Your task to perform on an android device: change the upload size in google photos Image 0: 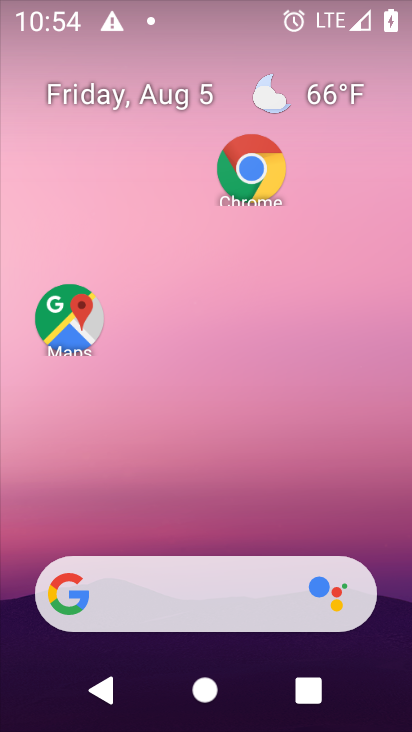
Step 0: drag from (185, 513) to (164, 103)
Your task to perform on an android device: change the upload size in google photos Image 1: 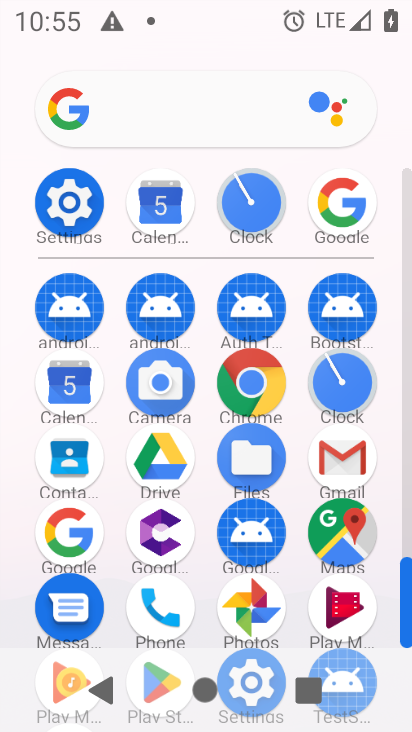
Step 1: click (255, 604)
Your task to perform on an android device: change the upload size in google photos Image 2: 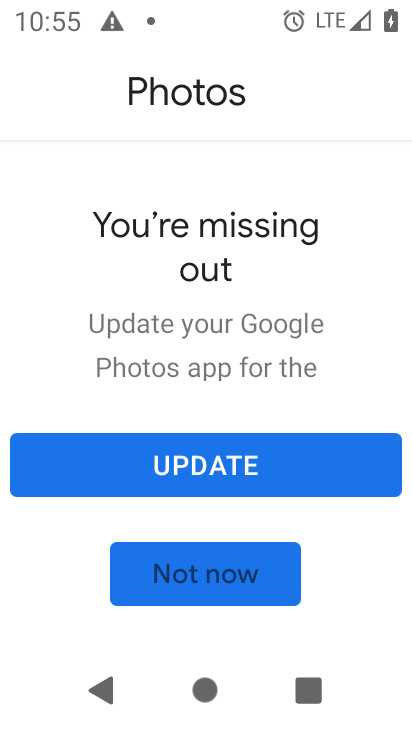
Step 2: click (194, 575)
Your task to perform on an android device: change the upload size in google photos Image 3: 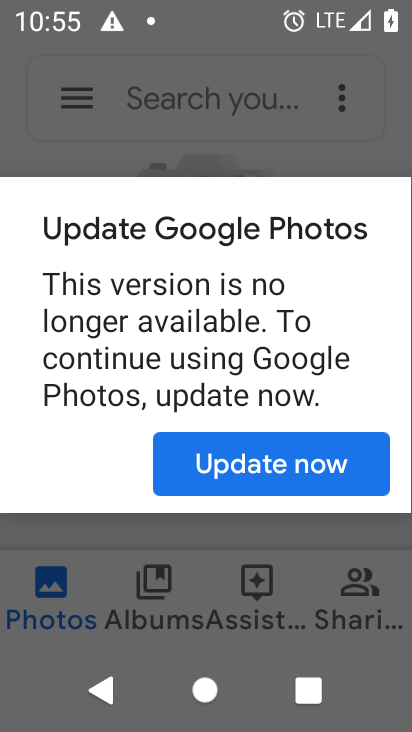
Step 3: click (339, 457)
Your task to perform on an android device: change the upload size in google photos Image 4: 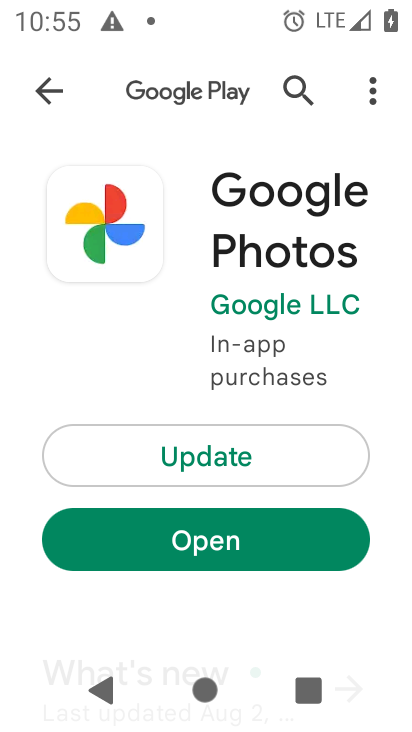
Step 4: click (274, 527)
Your task to perform on an android device: change the upload size in google photos Image 5: 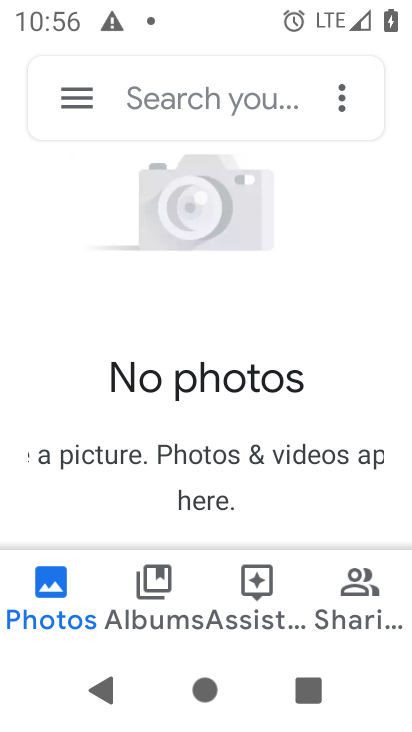
Step 5: click (82, 85)
Your task to perform on an android device: change the upload size in google photos Image 6: 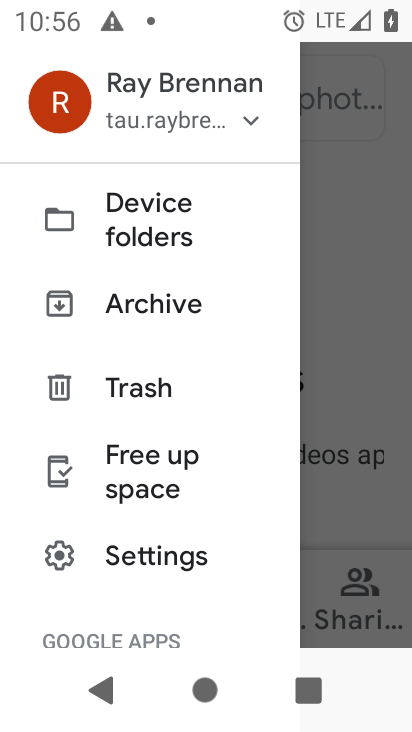
Step 6: drag from (119, 566) to (130, 254)
Your task to perform on an android device: change the upload size in google photos Image 7: 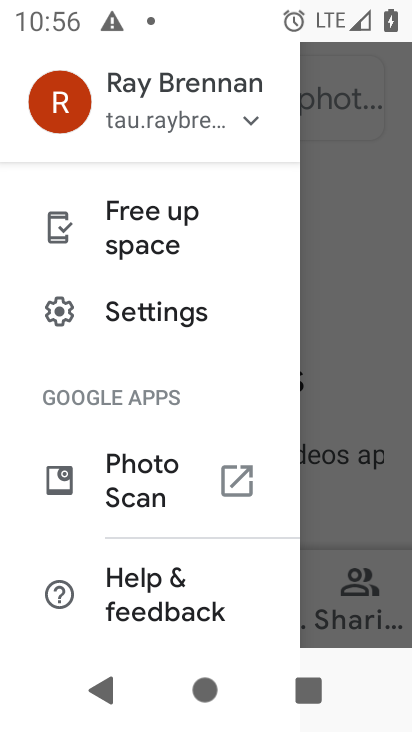
Step 7: click (138, 311)
Your task to perform on an android device: change the upload size in google photos Image 8: 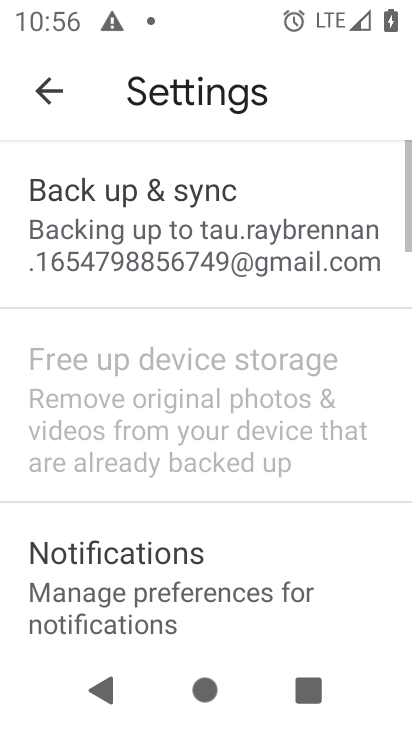
Step 8: drag from (132, 523) to (134, 185)
Your task to perform on an android device: change the upload size in google photos Image 9: 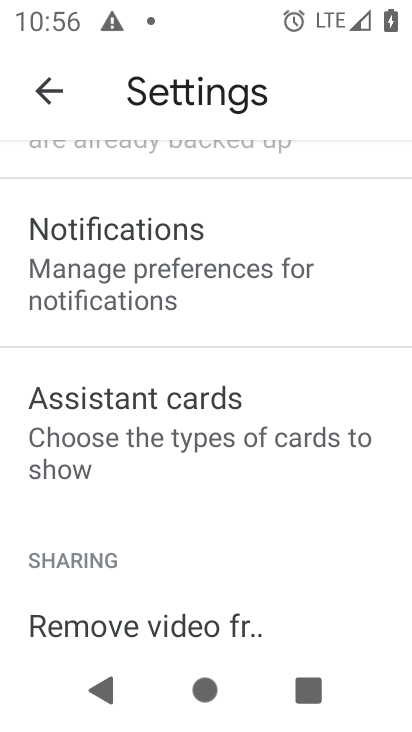
Step 9: drag from (143, 493) to (155, 157)
Your task to perform on an android device: change the upload size in google photos Image 10: 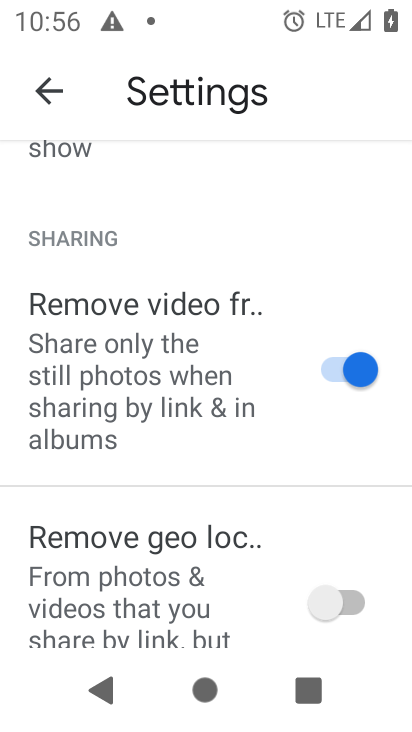
Step 10: drag from (135, 548) to (149, 214)
Your task to perform on an android device: change the upload size in google photos Image 11: 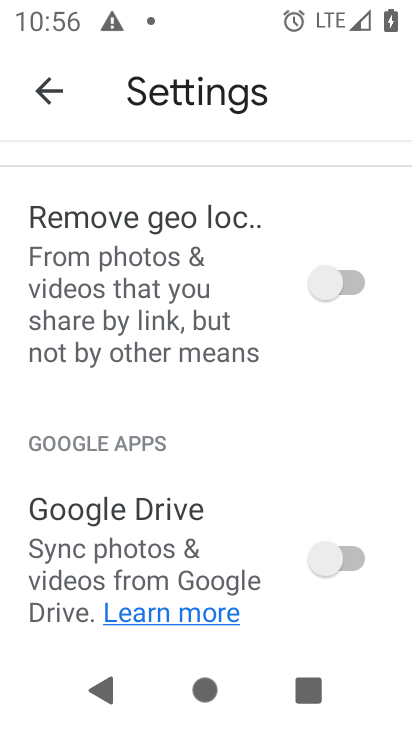
Step 11: drag from (149, 587) to (162, 195)
Your task to perform on an android device: change the upload size in google photos Image 12: 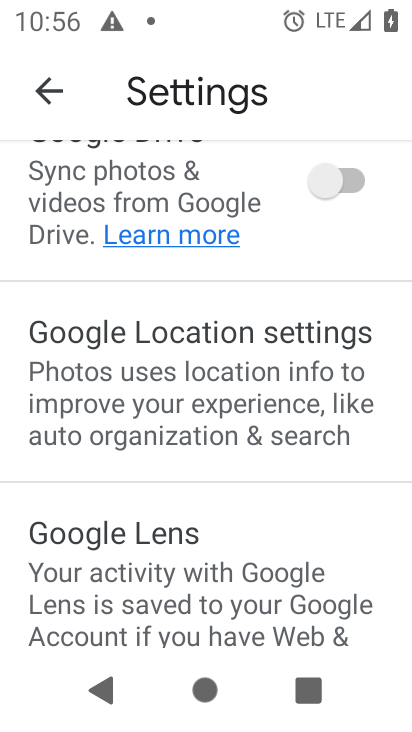
Step 12: drag from (163, 251) to (163, 572)
Your task to perform on an android device: change the upload size in google photos Image 13: 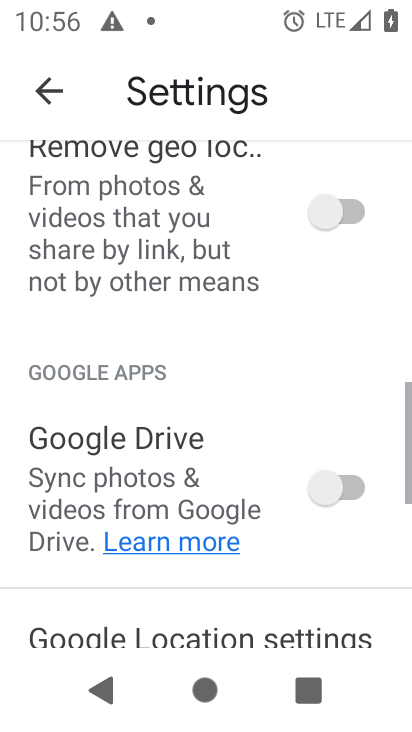
Step 13: drag from (162, 271) to (202, 597)
Your task to perform on an android device: change the upload size in google photos Image 14: 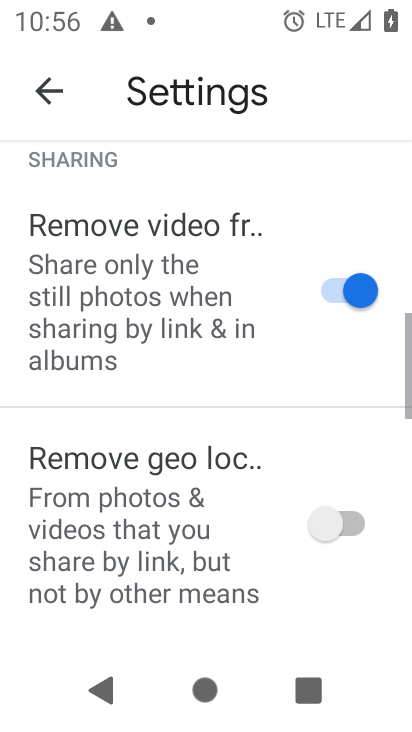
Step 14: drag from (143, 224) to (183, 571)
Your task to perform on an android device: change the upload size in google photos Image 15: 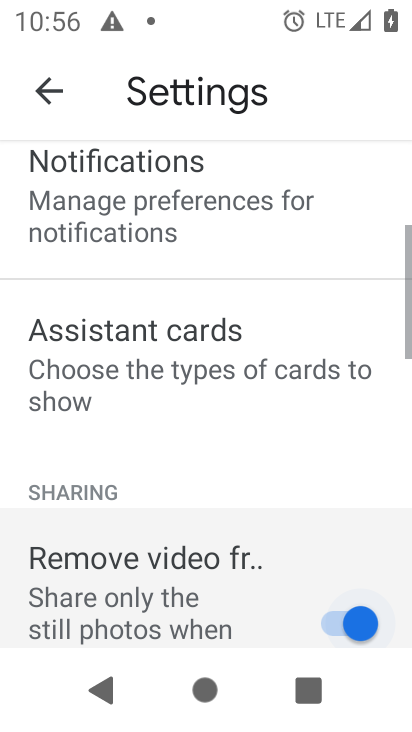
Step 15: drag from (184, 195) to (223, 562)
Your task to perform on an android device: change the upload size in google photos Image 16: 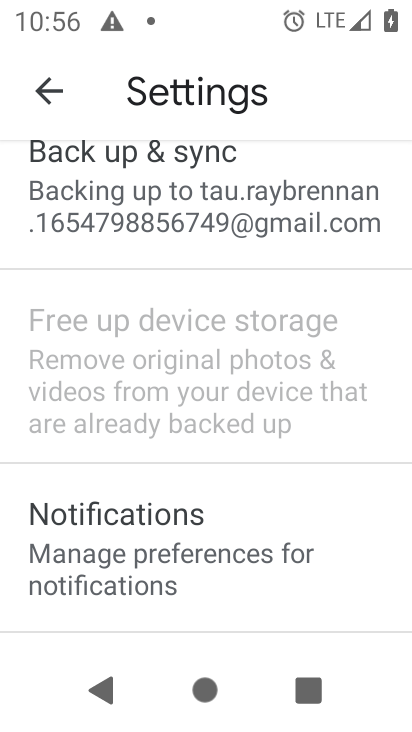
Step 16: drag from (145, 319) to (147, 533)
Your task to perform on an android device: change the upload size in google photos Image 17: 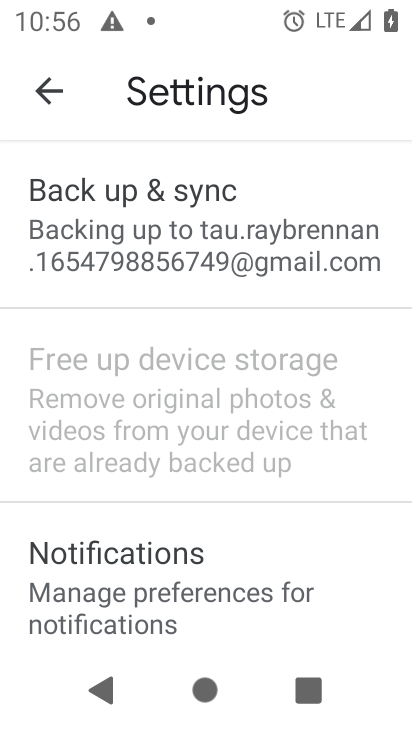
Step 17: click (170, 235)
Your task to perform on an android device: change the upload size in google photos Image 18: 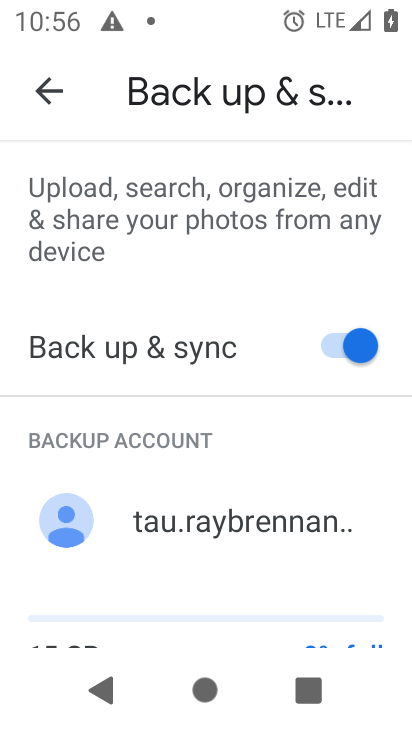
Step 18: drag from (150, 537) to (163, 229)
Your task to perform on an android device: change the upload size in google photos Image 19: 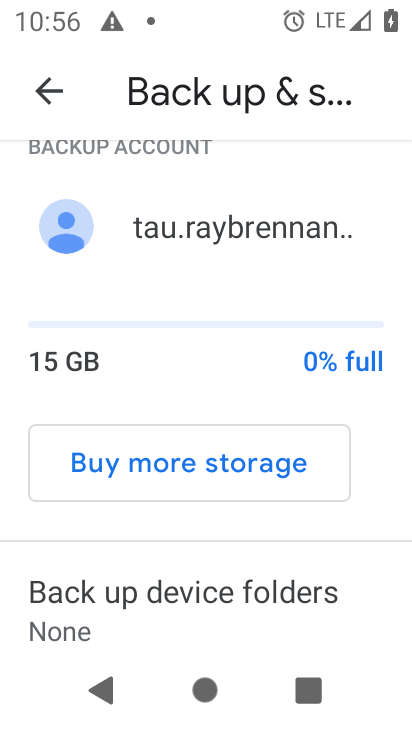
Step 19: drag from (163, 225) to (172, 539)
Your task to perform on an android device: change the upload size in google photos Image 20: 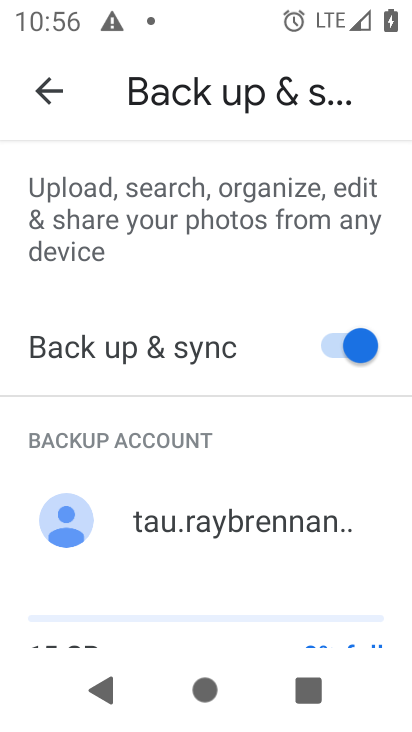
Step 20: drag from (187, 517) to (164, 169)
Your task to perform on an android device: change the upload size in google photos Image 21: 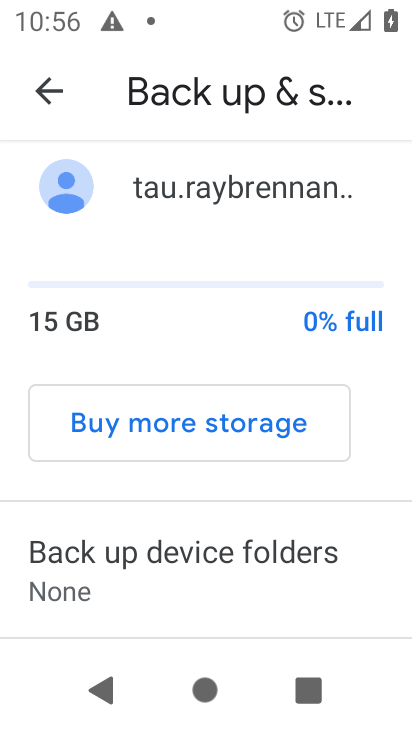
Step 21: drag from (167, 517) to (168, 160)
Your task to perform on an android device: change the upload size in google photos Image 22: 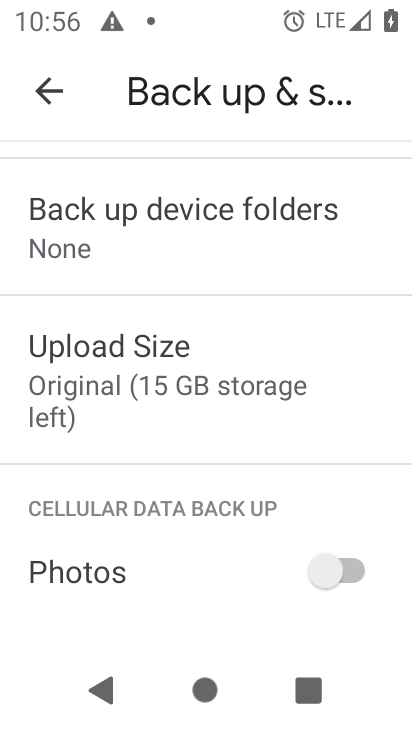
Step 22: click (187, 354)
Your task to perform on an android device: change the upload size in google photos Image 23: 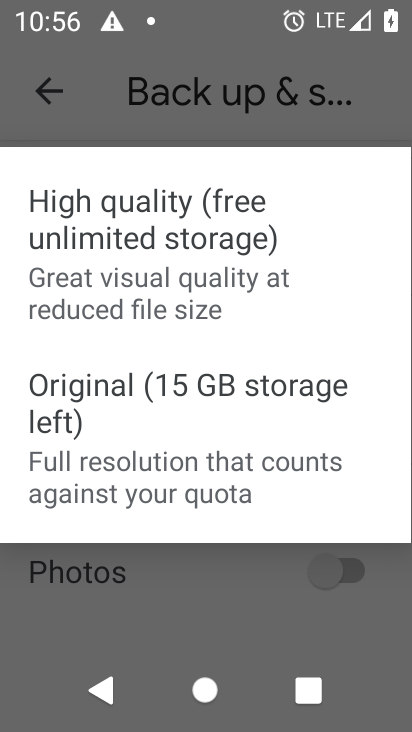
Step 23: click (117, 248)
Your task to perform on an android device: change the upload size in google photos Image 24: 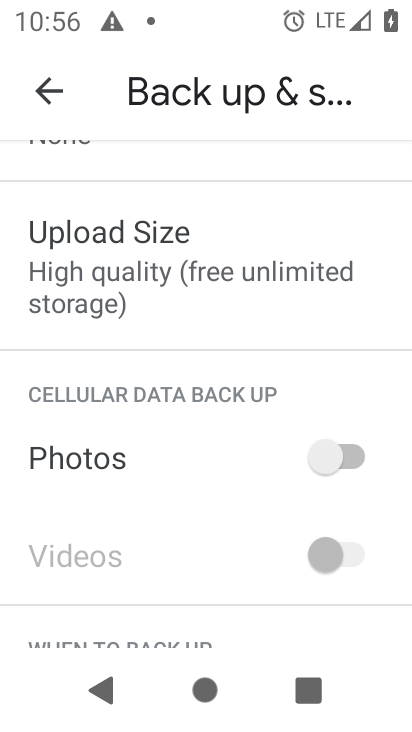
Step 24: task complete